Your task to perform on an android device: turn vacation reply on in the gmail app Image 0: 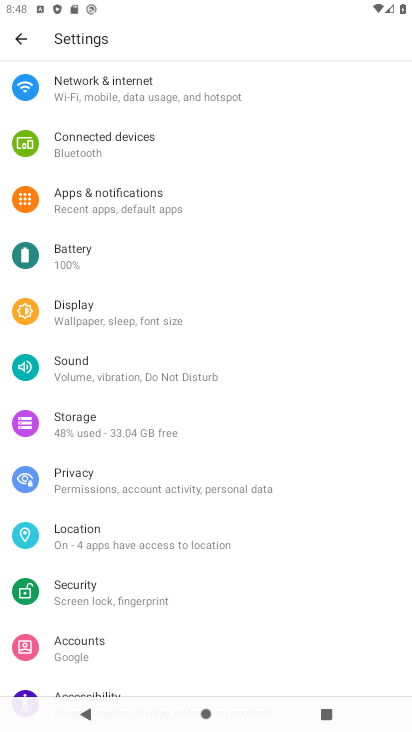
Step 0: press home button
Your task to perform on an android device: turn vacation reply on in the gmail app Image 1: 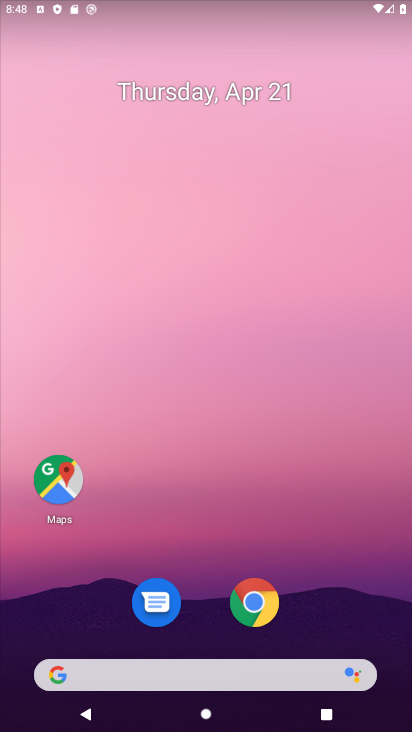
Step 1: drag from (228, 631) to (231, 147)
Your task to perform on an android device: turn vacation reply on in the gmail app Image 2: 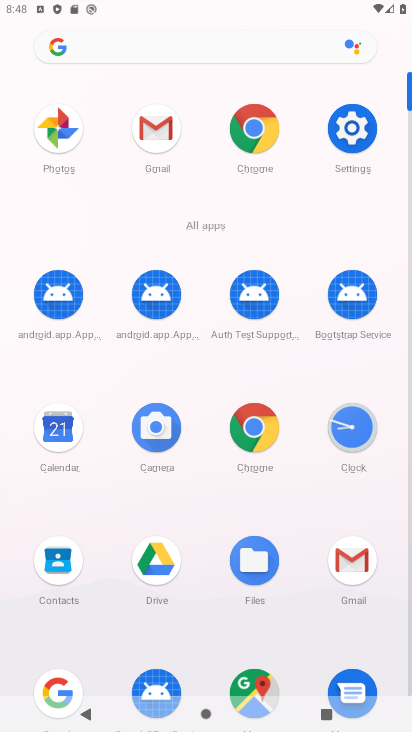
Step 2: click (164, 109)
Your task to perform on an android device: turn vacation reply on in the gmail app Image 3: 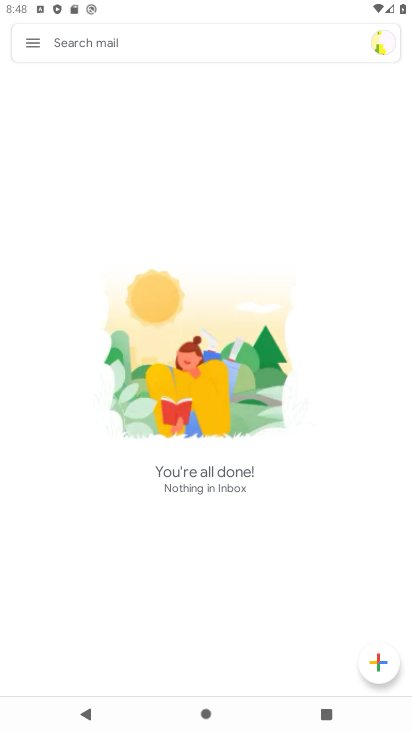
Step 3: click (25, 38)
Your task to perform on an android device: turn vacation reply on in the gmail app Image 4: 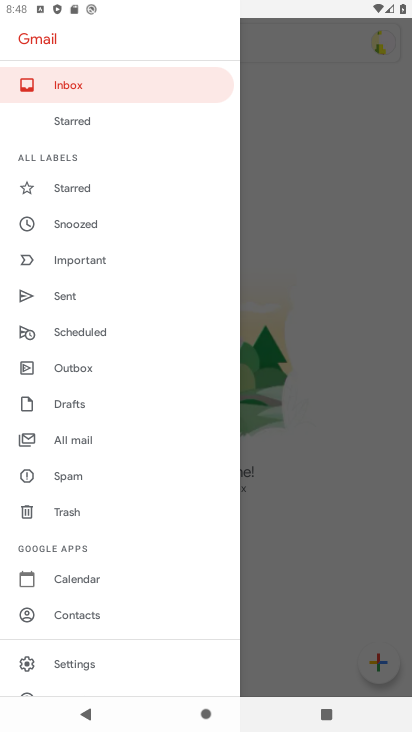
Step 4: click (96, 657)
Your task to perform on an android device: turn vacation reply on in the gmail app Image 5: 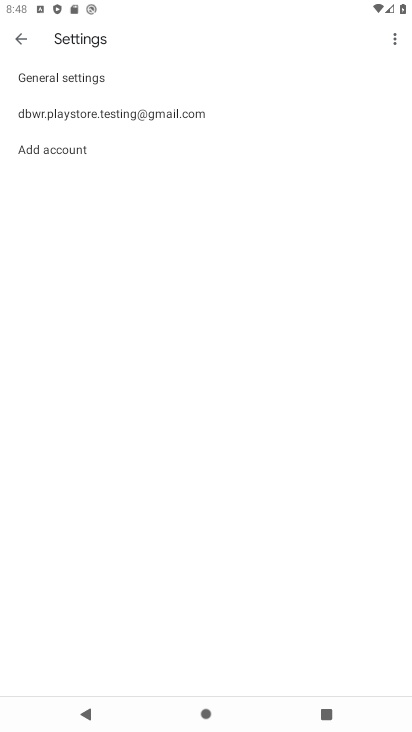
Step 5: click (162, 126)
Your task to perform on an android device: turn vacation reply on in the gmail app Image 6: 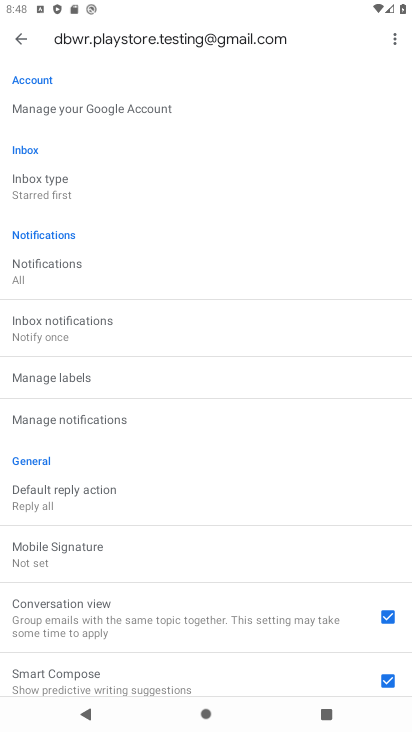
Step 6: drag from (76, 653) to (162, 268)
Your task to perform on an android device: turn vacation reply on in the gmail app Image 7: 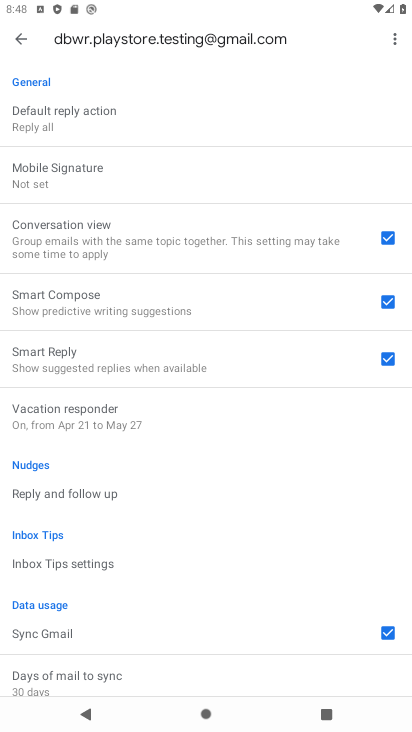
Step 7: click (111, 416)
Your task to perform on an android device: turn vacation reply on in the gmail app Image 8: 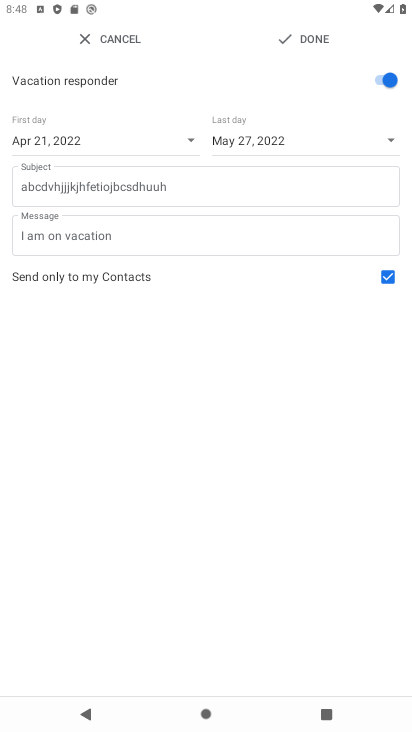
Step 8: click (306, 46)
Your task to perform on an android device: turn vacation reply on in the gmail app Image 9: 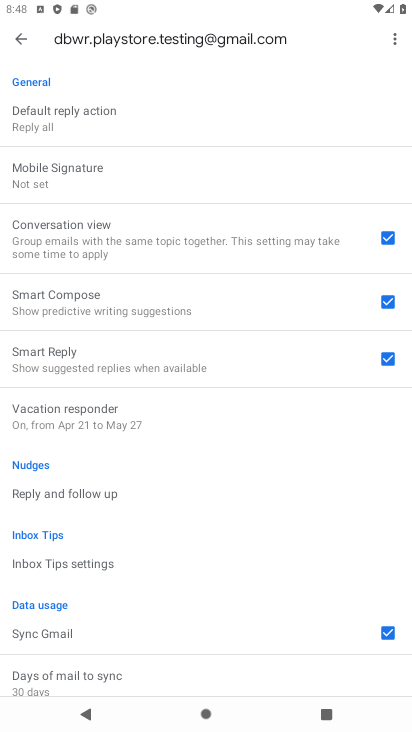
Step 9: task complete